Your task to perform on an android device: Go to Maps Image 0: 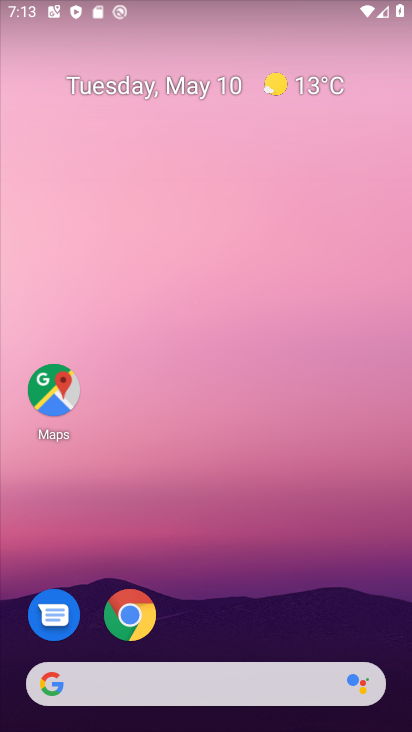
Step 0: drag from (253, 591) to (242, 2)
Your task to perform on an android device: Go to Maps Image 1: 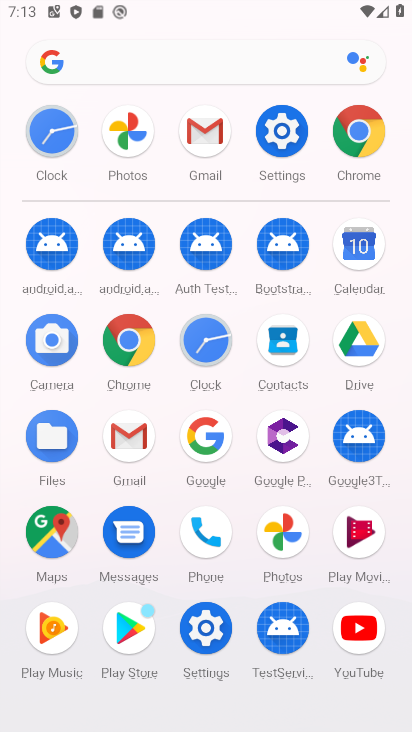
Step 1: click (60, 541)
Your task to perform on an android device: Go to Maps Image 2: 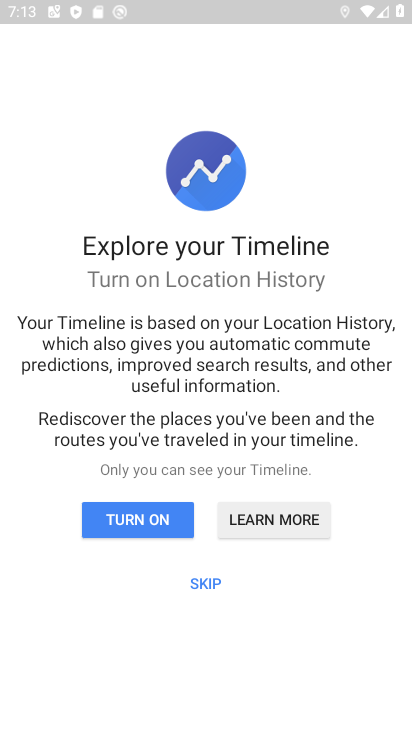
Step 2: click (209, 591)
Your task to perform on an android device: Go to Maps Image 3: 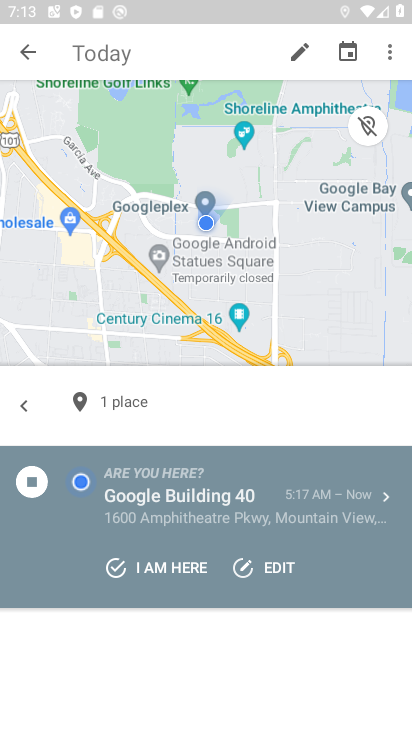
Step 3: task complete